Your task to perform on an android device: Open the Play Movies app and select the watchlist tab. Image 0: 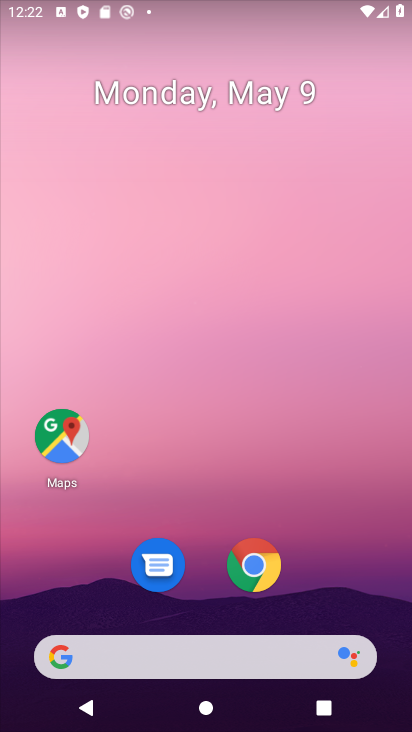
Step 0: drag from (207, 605) to (233, 172)
Your task to perform on an android device: Open the Play Movies app and select the watchlist tab. Image 1: 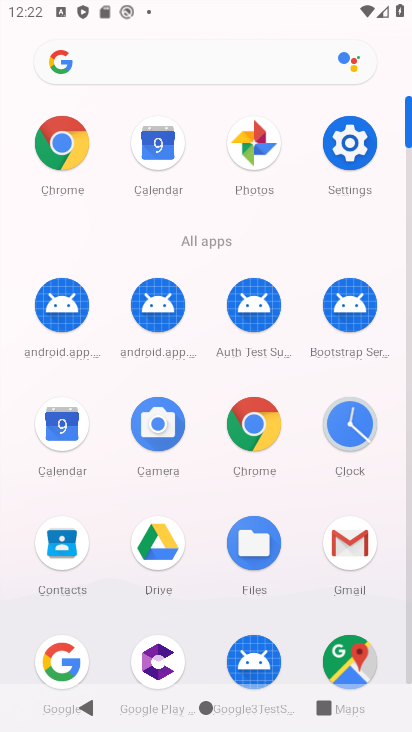
Step 1: drag from (269, 526) to (313, 153)
Your task to perform on an android device: Open the Play Movies app and select the watchlist tab. Image 2: 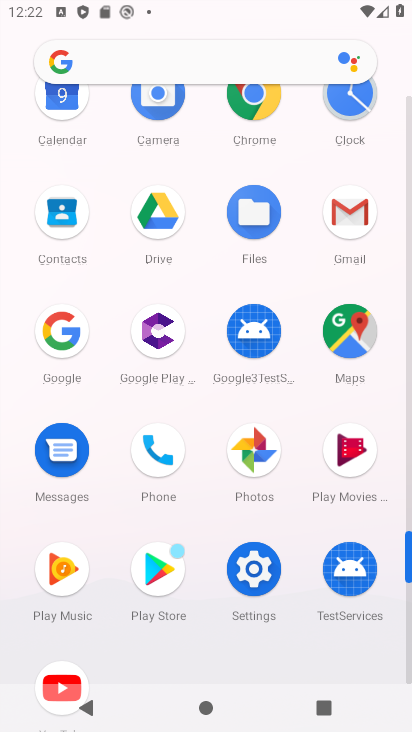
Step 2: drag from (230, 425) to (249, 249)
Your task to perform on an android device: Open the Play Movies app and select the watchlist tab. Image 3: 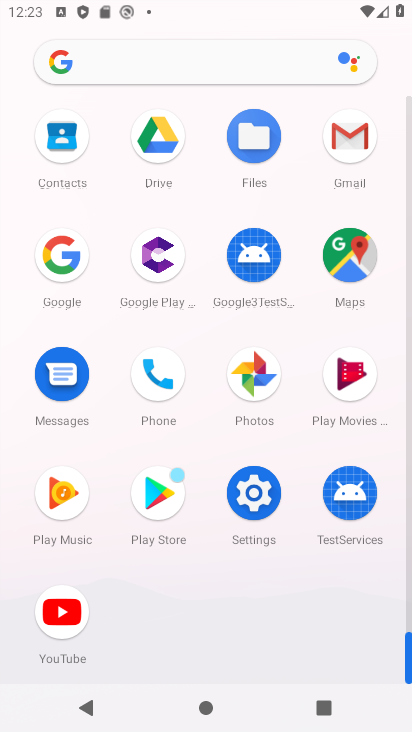
Step 3: click (352, 375)
Your task to perform on an android device: Open the Play Movies app and select the watchlist tab. Image 4: 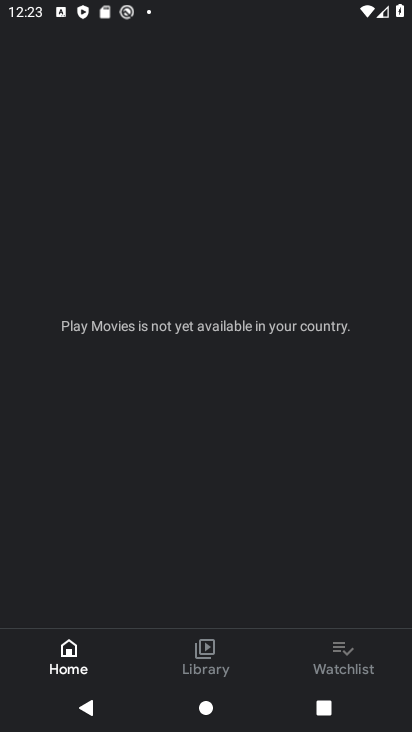
Step 4: click (287, 662)
Your task to perform on an android device: Open the Play Movies app and select the watchlist tab. Image 5: 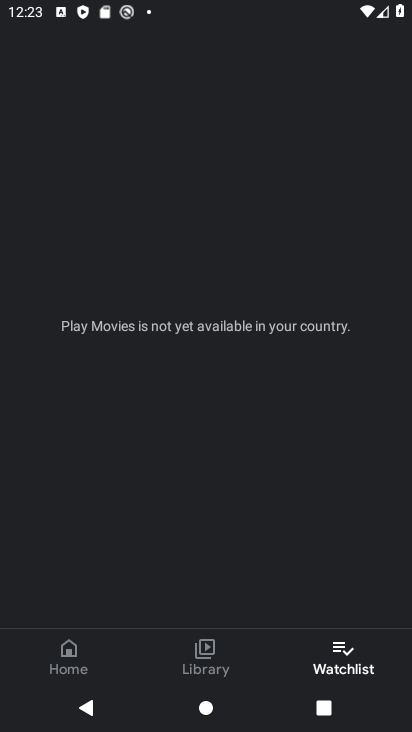
Step 5: task complete